Your task to perform on an android device: snooze an email in the gmail app Image 0: 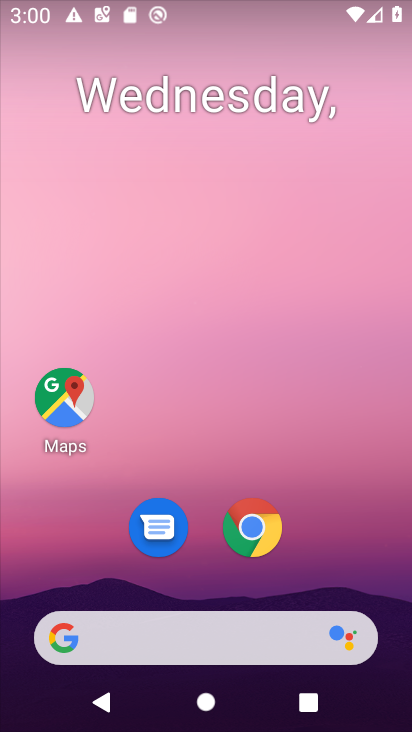
Step 0: drag from (361, 300) to (391, 77)
Your task to perform on an android device: snooze an email in the gmail app Image 1: 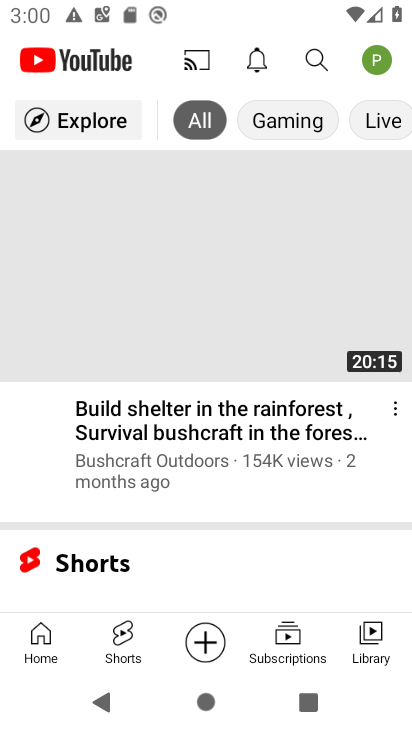
Step 1: press home button
Your task to perform on an android device: snooze an email in the gmail app Image 2: 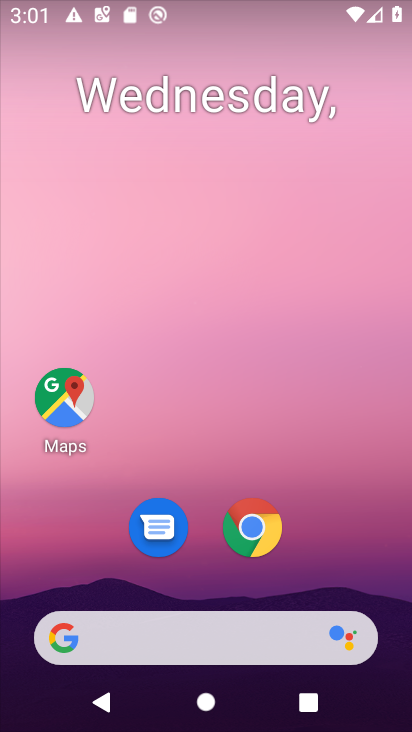
Step 2: drag from (351, 493) to (283, 31)
Your task to perform on an android device: snooze an email in the gmail app Image 3: 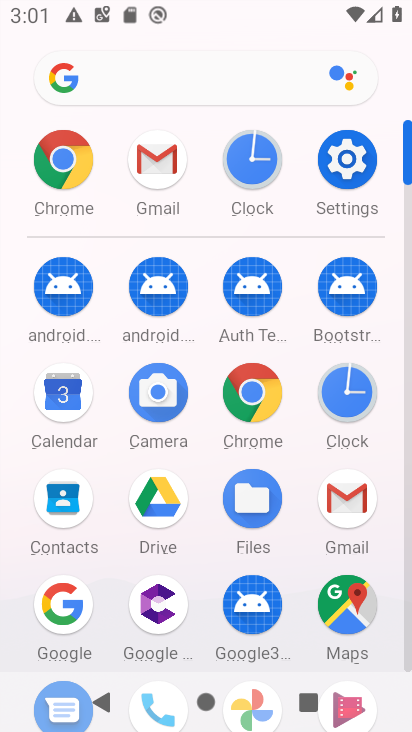
Step 3: click (336, 494)
Your task to perform on an android device: snooze an email in the gmail app Image 4: 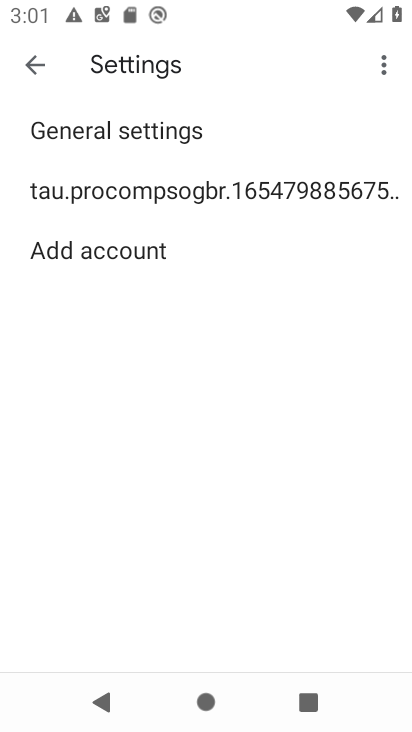
Step 4: click (39, 62)
Your task to perform on an android device: snooze an email in the gmail app Image 5: 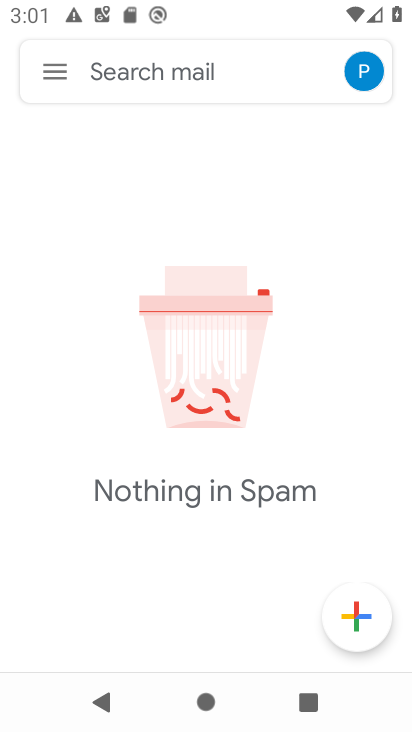
Step 5: click (45, 65)
Your task to perform on an android device: snooze an email in the gmail app Image 6: 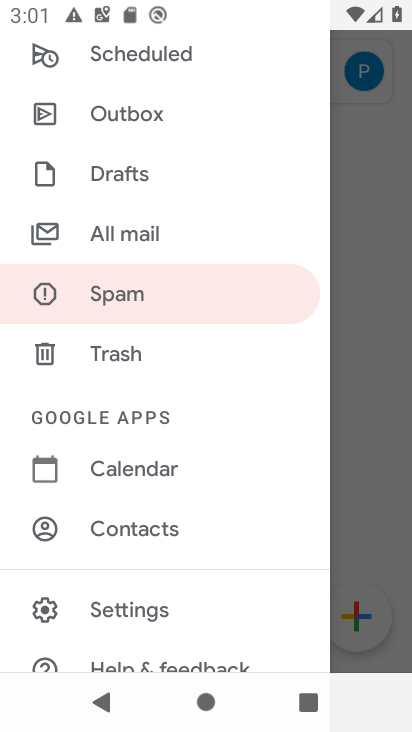
Step 6: drag from (204, 141) to (173, 460)
Your task to perform on an android device: snooze an email in the gmail app Image 7: 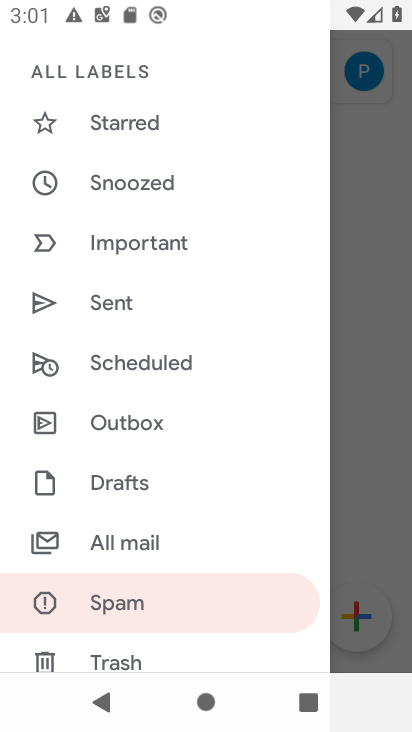
Step 7: click (112, 538)
Your task to perform on an android device: snooze an email in the gmail app Image 8: 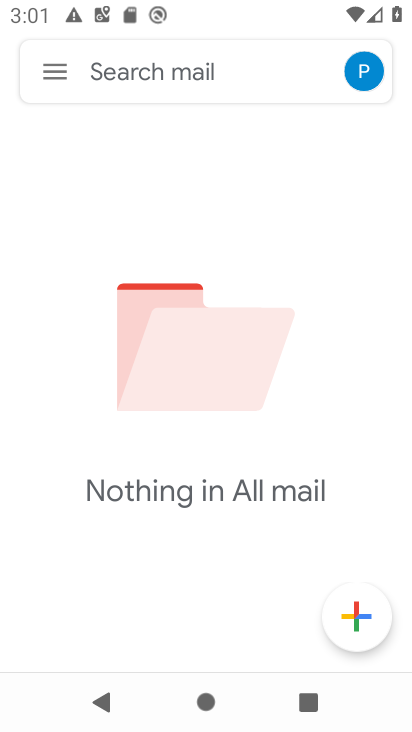
Step 8: task complete